Your task to perform on an android device: Open Amazon Image 0: 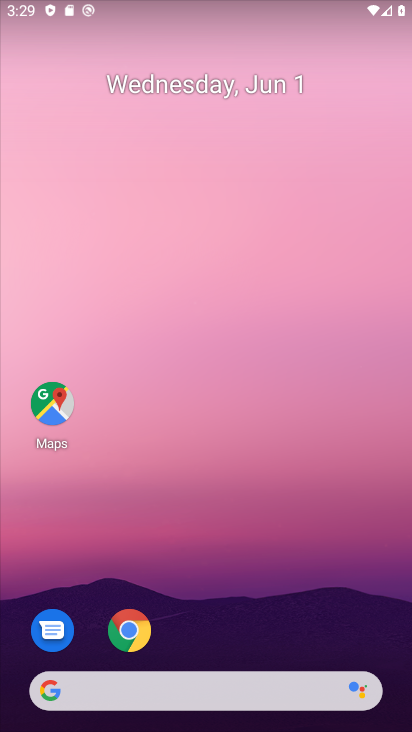
Step 0: click (120, 650)
Your task to perform on an android device: Open Amazon Image 1: 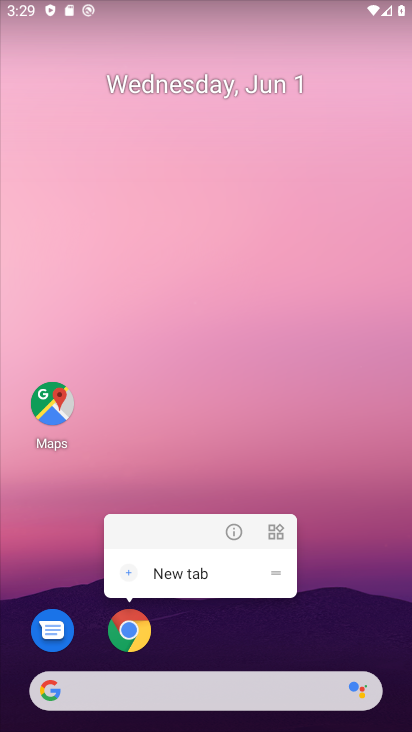
Step 1: click (134, 639)
Your task to perform on an android device: Open Amazon Image 2: 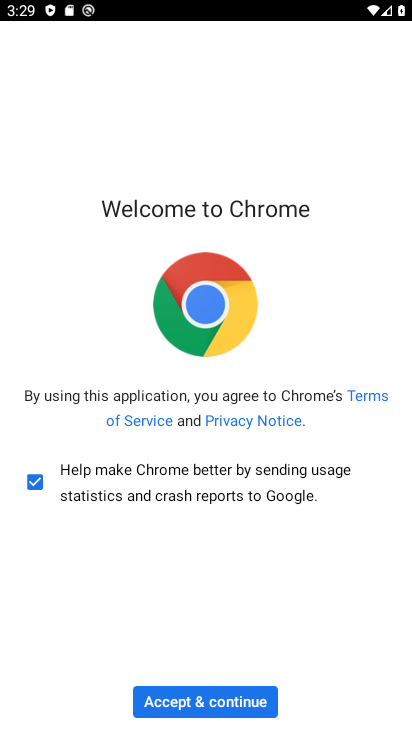
Step 2: click (200, 700)
Your task to perform on an android device: Open Amazon Image 3: 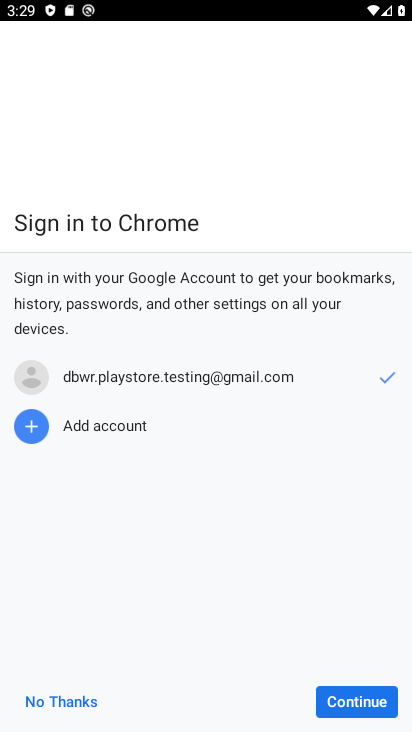
Step 3: click (395, 705)
Your task to perform on an android device: Open Amazon Image 4: 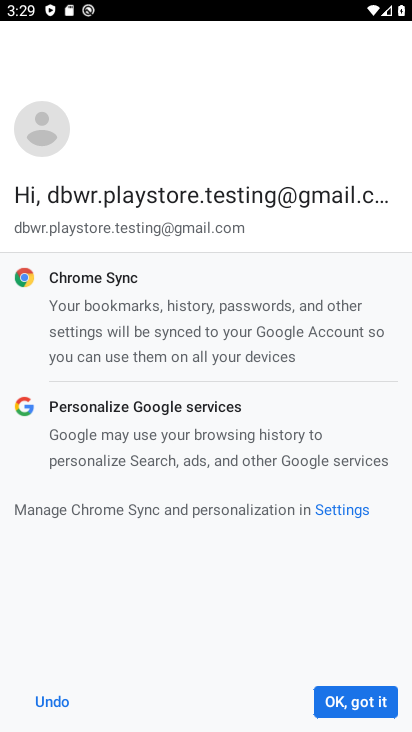
Step 4: click (371, 700)
Your task to perform on an android device: Open Amazon Image 5: 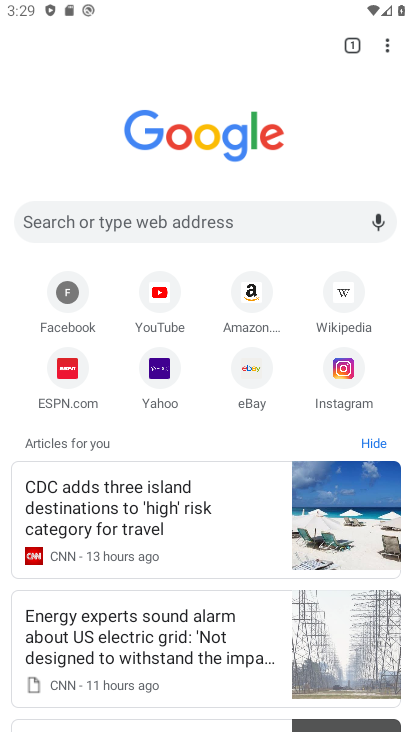
Step 5: click (259, 286)
Your task to perform on an android device: Open Amazon Image 6: 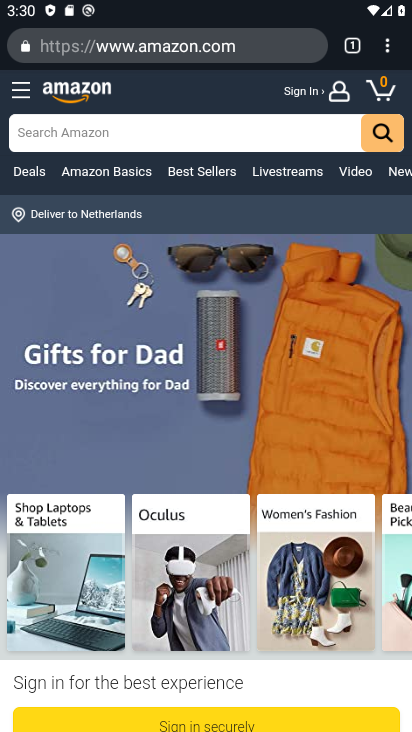
Step 6: task complete